Your task to perform on an android device: allow cookies in the chrome app Image 0: 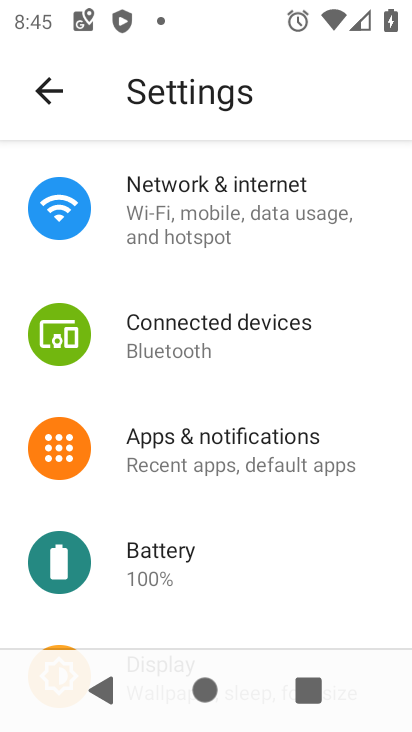
Step 0: press home button
Your task to perform on an android device: allow cookies in the chrome app Image 1: 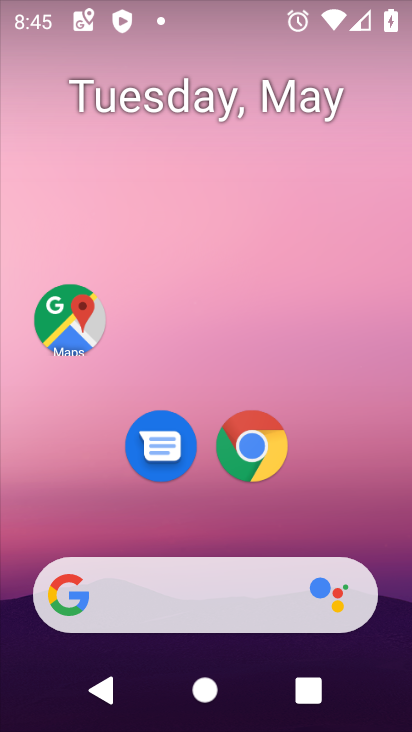
Step 1: click (259, 452)
Your task to perform on an android device: allow cookies in the chrome app Image 2: 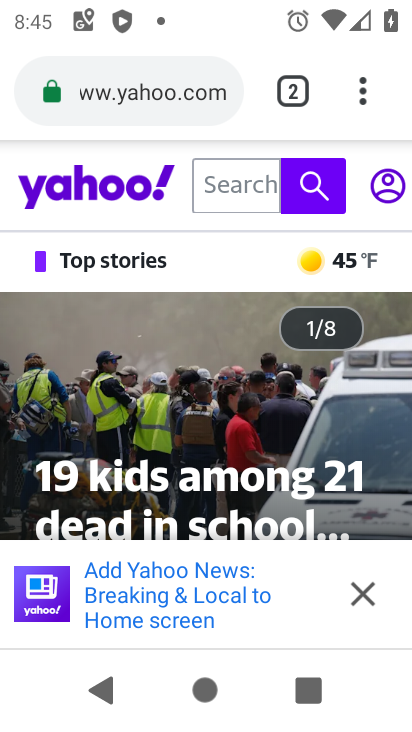
Step 2: click (359, 93)
Your task to perform on an android device: allow cookies in the chrome app Image 3: 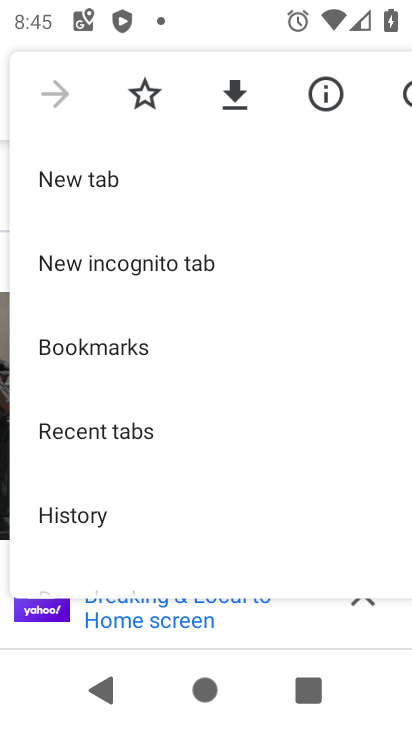
Step 3: drag from (188, 446) to (170, 131)
Your task to perform on an android device: allow cookies in the chrome app Image 4: 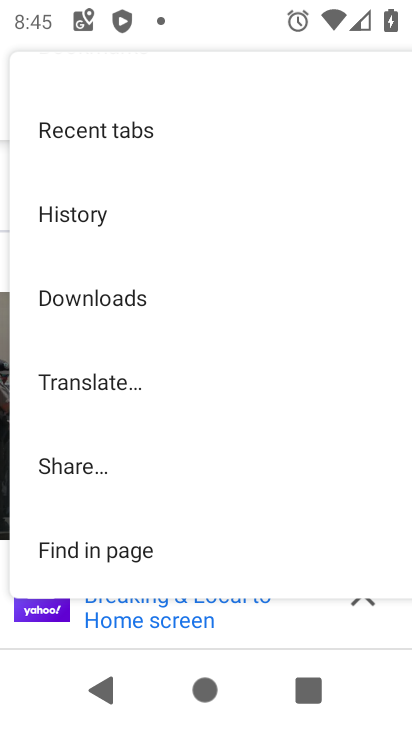
Step 4: drag from (169, 427) to (133, 109)
Your task to perform on an android device: allow cookies in the chrome app Image 5: 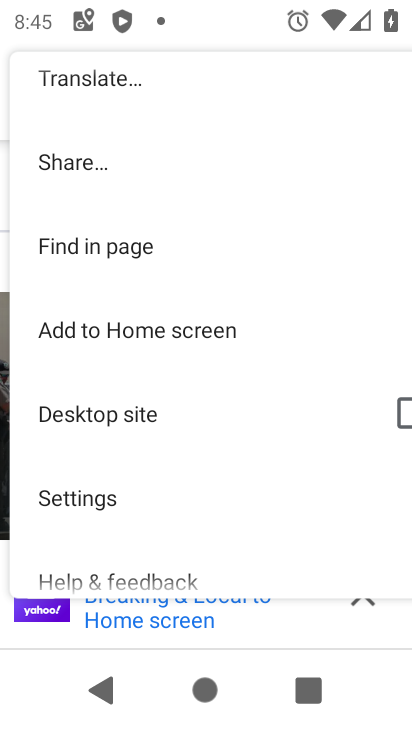
Step 5: click (91, 501)
Your task to perform on an android device: allow cookies in the chrome app Image 6: 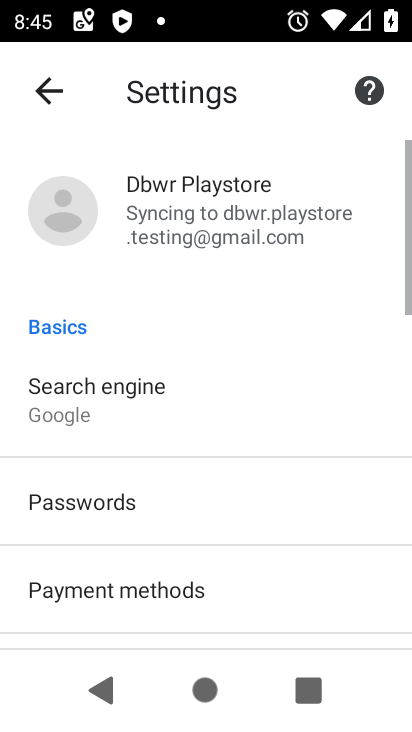
Step 6: drag from (187, 504) to (178, 145)
Your task to perform on an android device: allow cookies in the chrome app Image 7: 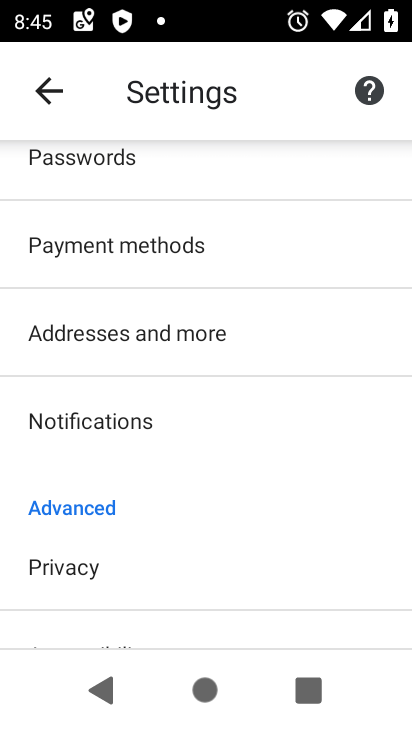
Step 7: drag from (152, 501) to (173, 149)
Your task to perform on an android device: allow cookies in the chrome app Image 8: 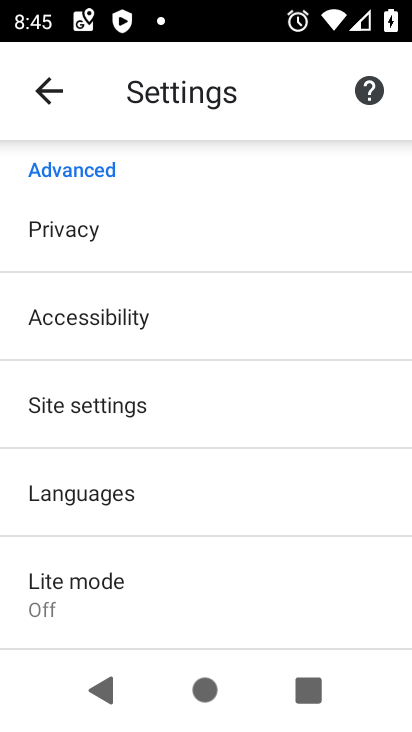
Step 8: click (138, 411)
Your task to perform on an android device: allow cookies in the chrome app Image 9: 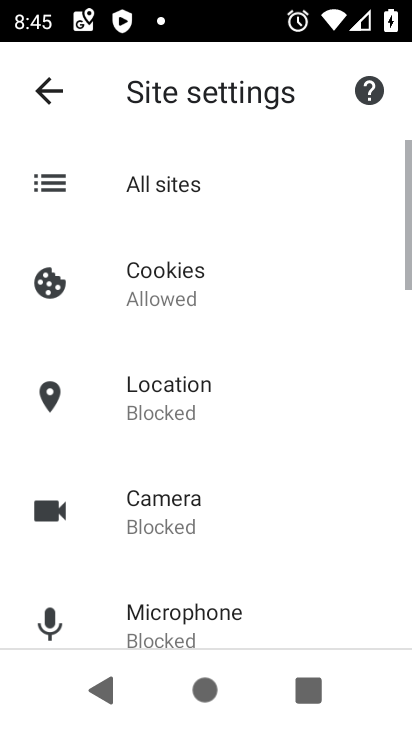
Step 9: click (162, 295)
Your task to perform on an android device: allow cookies in the chrome app Image 10: 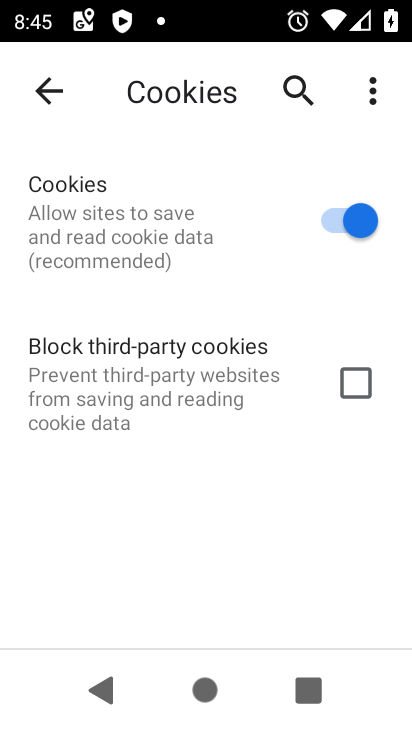
Step 10: task complete